Your task to perform on an android device: remove spam from my inbox in the gmail app Image 0: 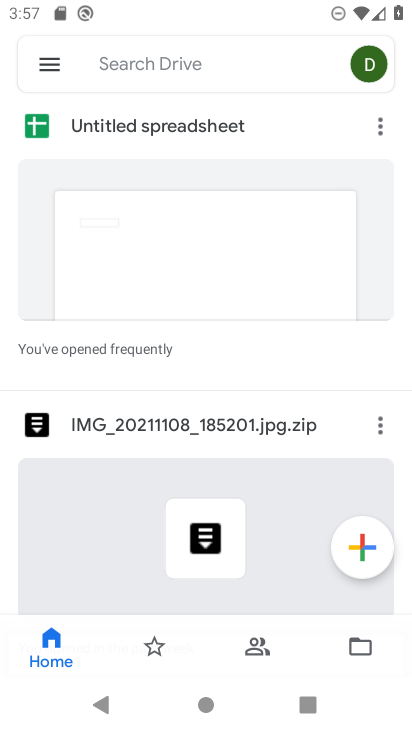
Step 0: press home button
Your task to perform on an android device: remove spam from my inbox in the gmail app Image 1: 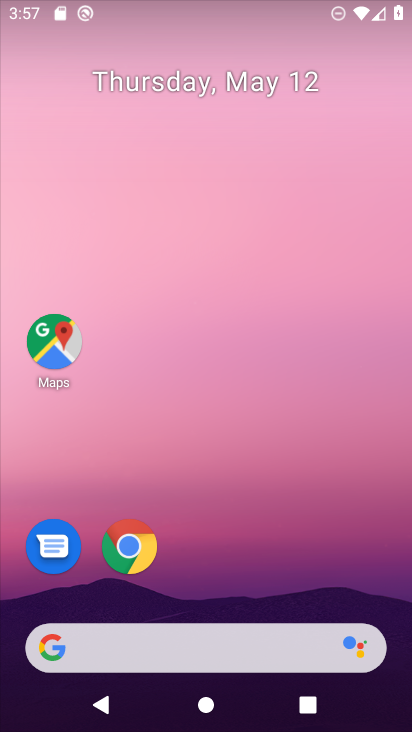
Step 1: drag from (249, 561) to (283, 270)
Your task to perform on an android device: remove spam from my inbox in the gmail app Image 2: 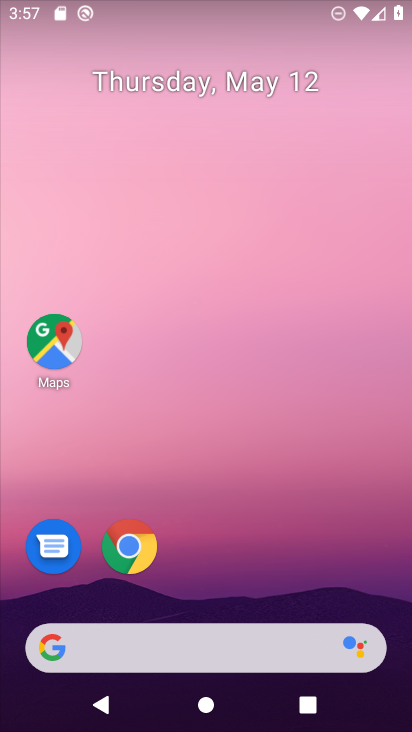
Step 2: drag from (217, 550) to (254, 211)
Your task to perform on an android device: remove spam from my inbox in the gmail app Image 3: 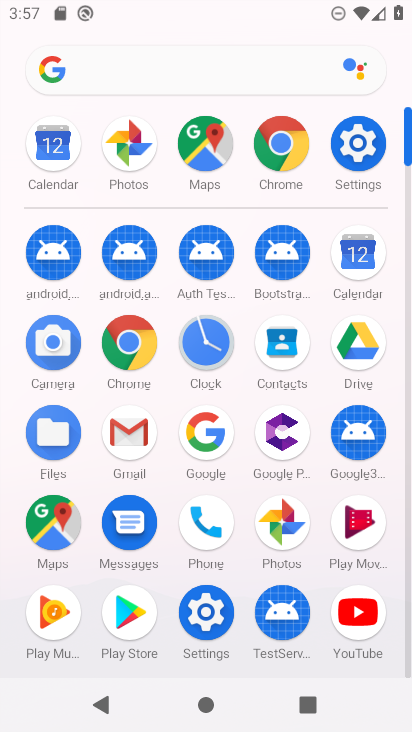
Step 3: click (128, 442)
Your task to perform on an android device: remove spam from my inbox in the gmail app Image 4: 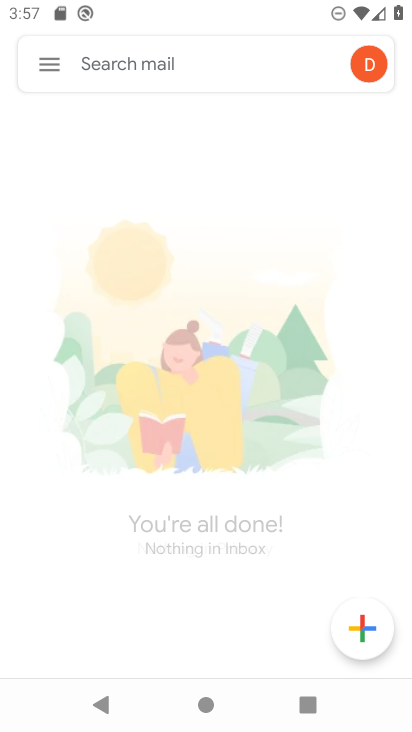
Step 4: click (48, 60)
Your task to perform on an android device: remove spam from my inbox in the gmail app Image 5: 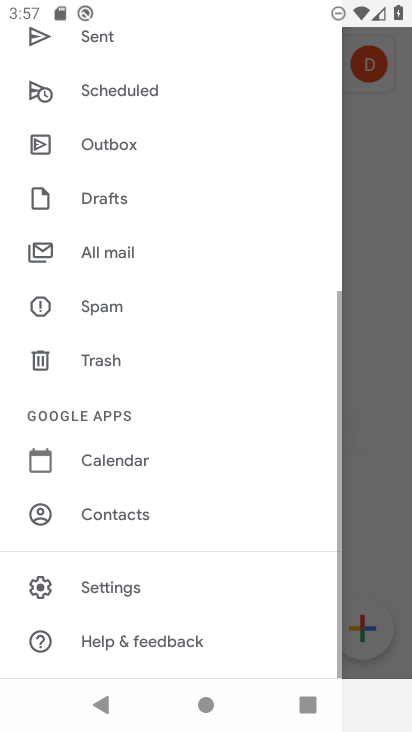
Step 5: click (115, 298)
Your task to perform on an android device: remove spam from my inbox in the gmail app Image 6: 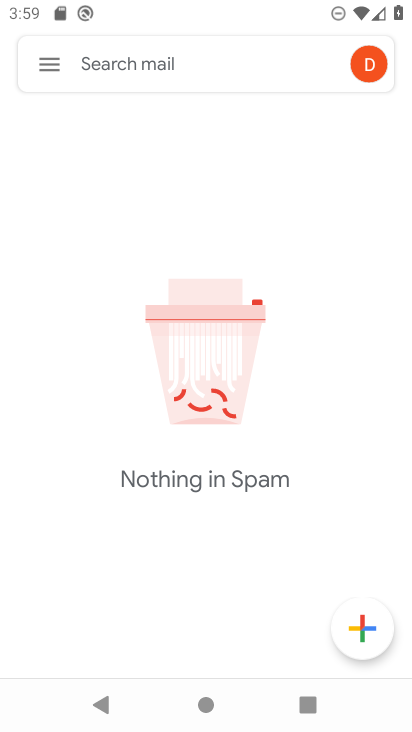
Step 6: task complete